Your task to perform on an android device: move a message to another label in the gmail app Image 0: 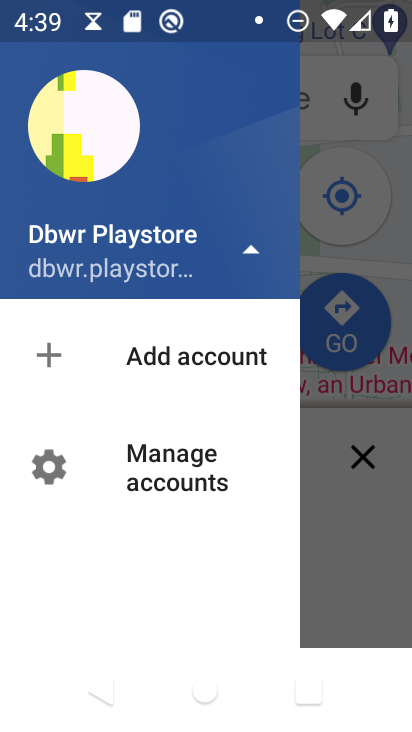
Step 0: press home button
Your task to perform on an android device: move a message to another label in the gmail app Image 1: 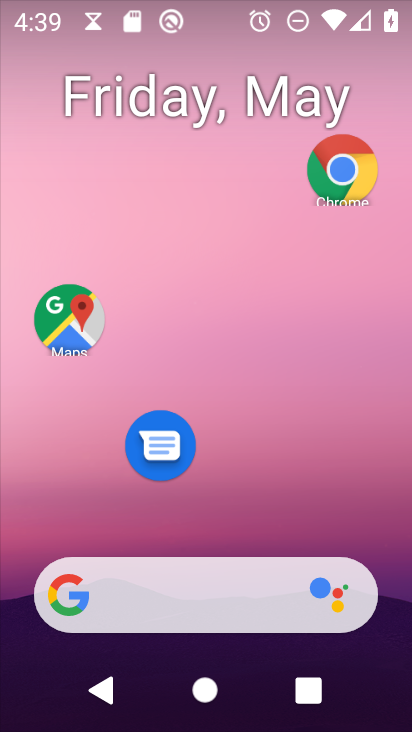
Step 1: drag from (239, 534) to (229, 93)
Your task to perform on an android device: move a message to another label in the gmail app Image 2: 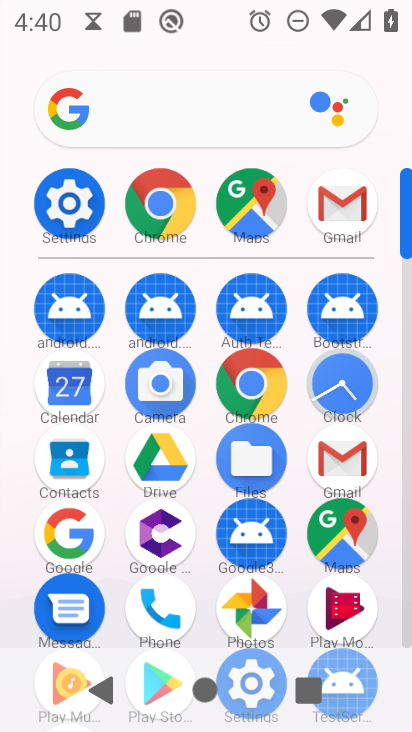
Step 2: click (349, 457)
Your task to perform on an android device: move a message to another label in the gmail app Image 3: 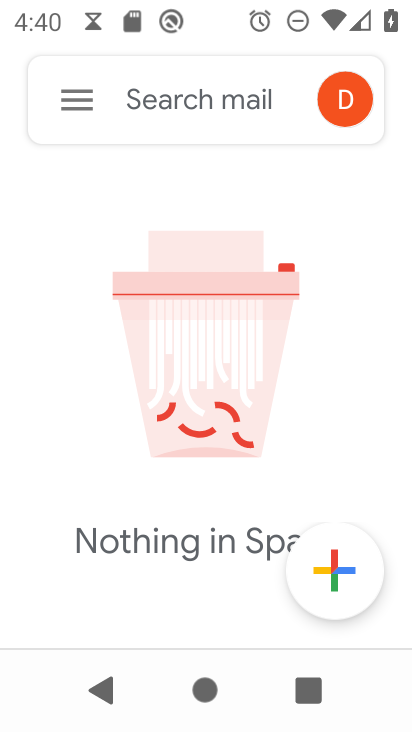
Step 3: click (83, 99)
Your task to perform on an android device: move a message to another label in the gmail app Image 4: 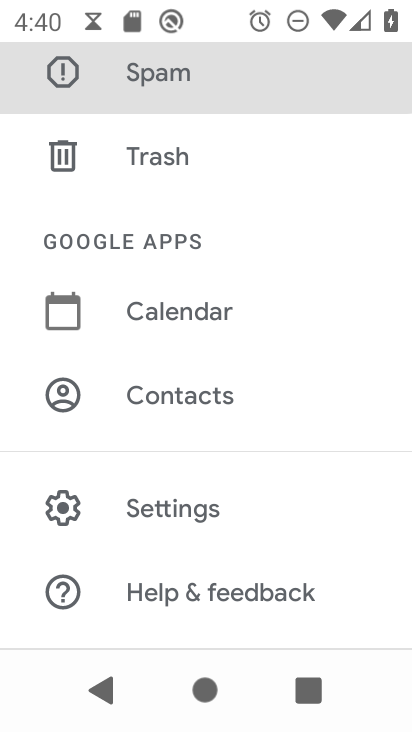
Step 4: drag from (172, 245) to (199, 406)
Your task to perform on an android device: move a message to another label in the gmail app Image 5: 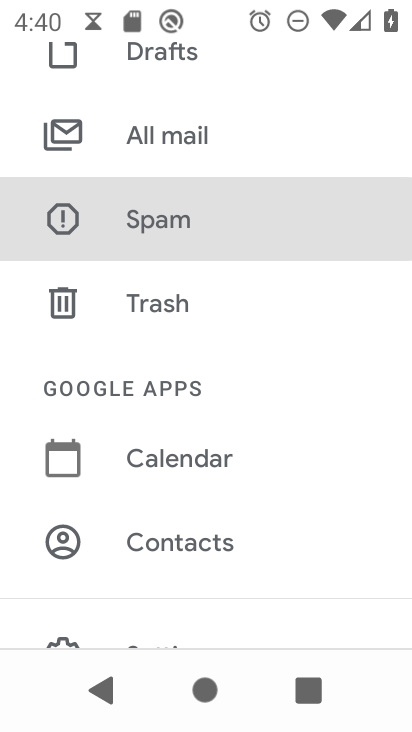
Step 5: click (164, 130)
Your task to perform on an android device: move a message to another label in the gmail app Image 6: 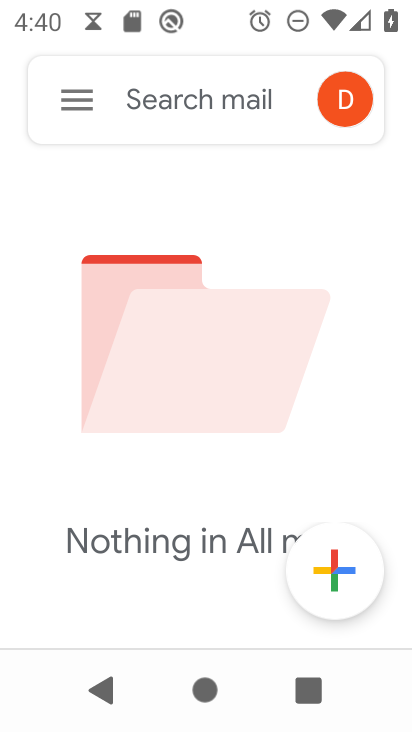
Step 6: task complete